Your task to perform on an android device: Is it going to rain tomorrow? Image 0: 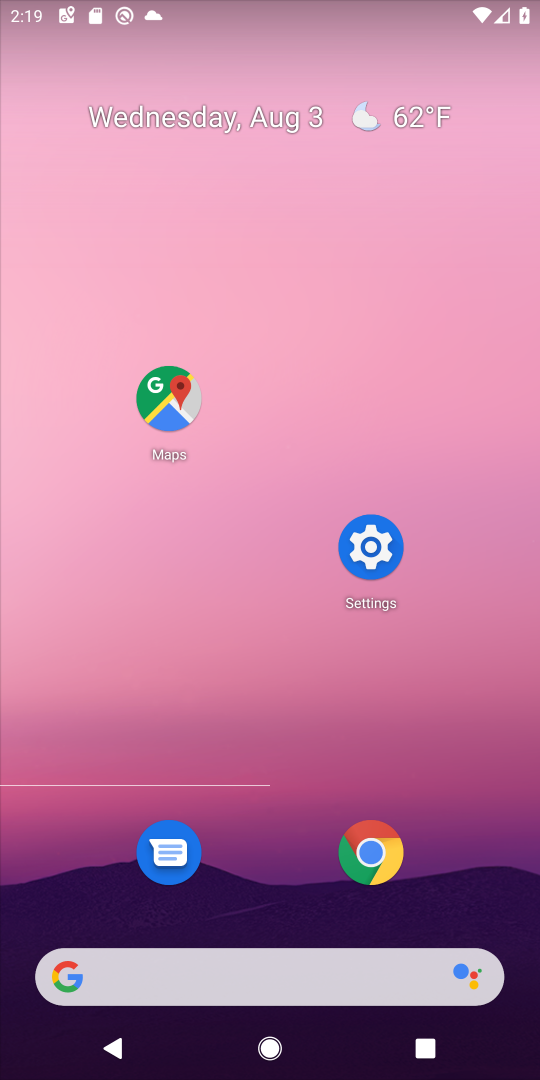
Step 0: press home button
Your task to perform on an android device: Is it going to rain tomorrow? Image 1: 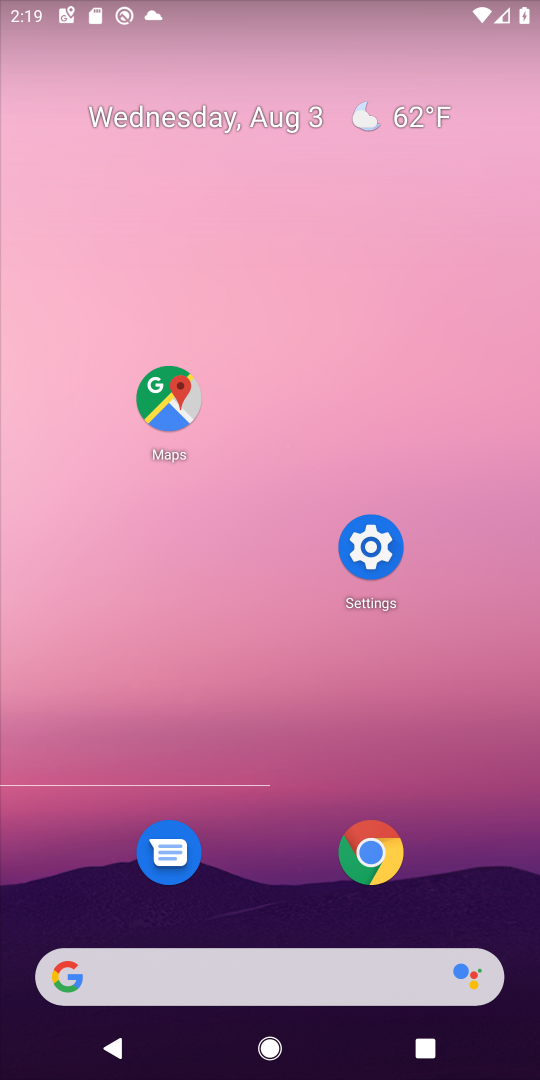
Step 1: click (171, 977)
Your task to perform on an android device: Is it going to rain tomorrow? Image 2: 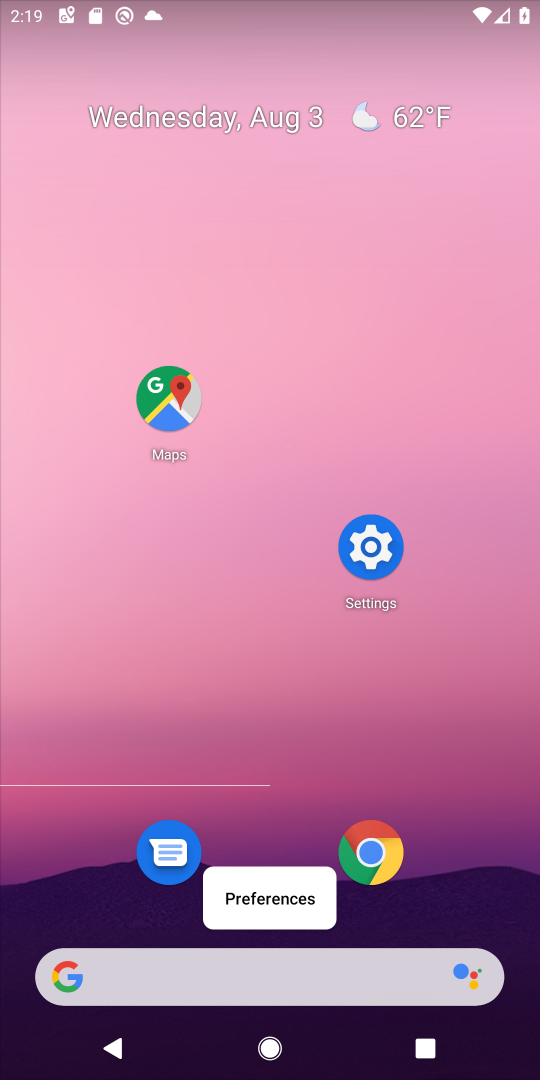
Step 2: click (166, 967)
Your task to perform on an android device: Is it going to rain tomorrow? Image 3: 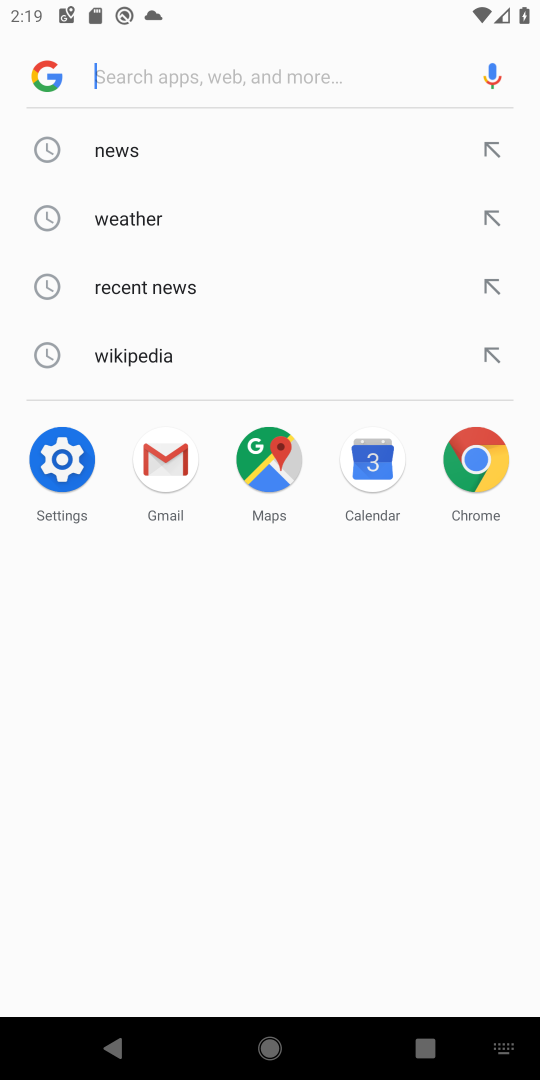
Step 3: click (149, 217)
Your task to perform on an android device: Is it going to rain tomorrow? Image 4: 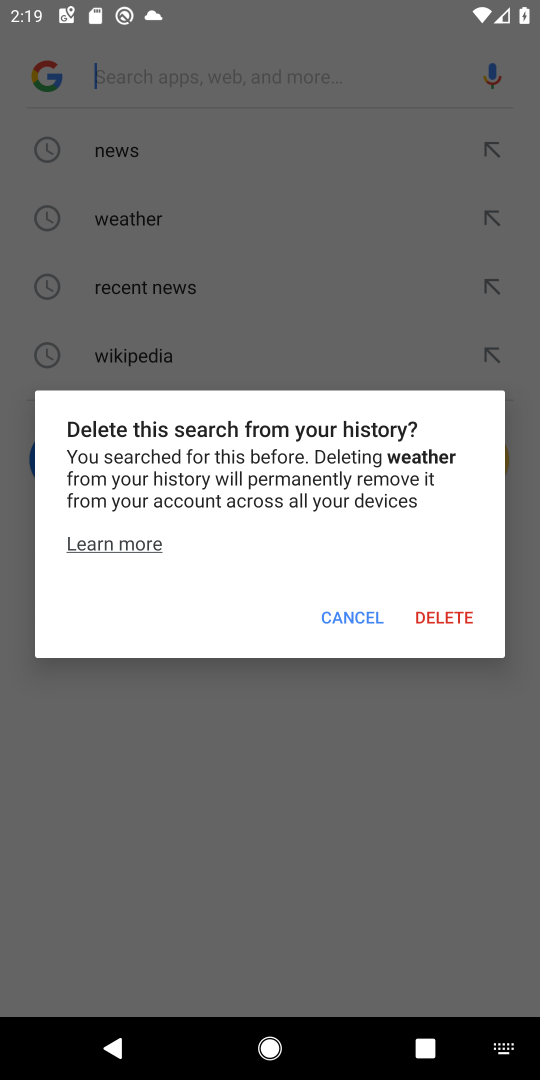
Step 4: click (342, 616)
Your task to perform on an android device: Is it going to rain tomorrow? Image 5: 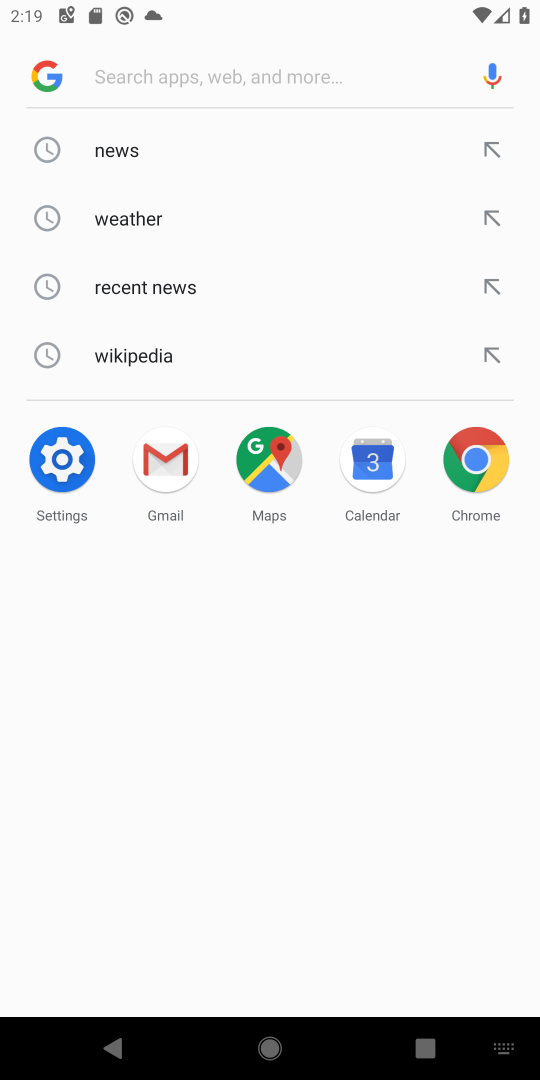
Step 5: click (105, 214)
Your task to perform on an android device: Is it going to rain tomorrow? Image 6: 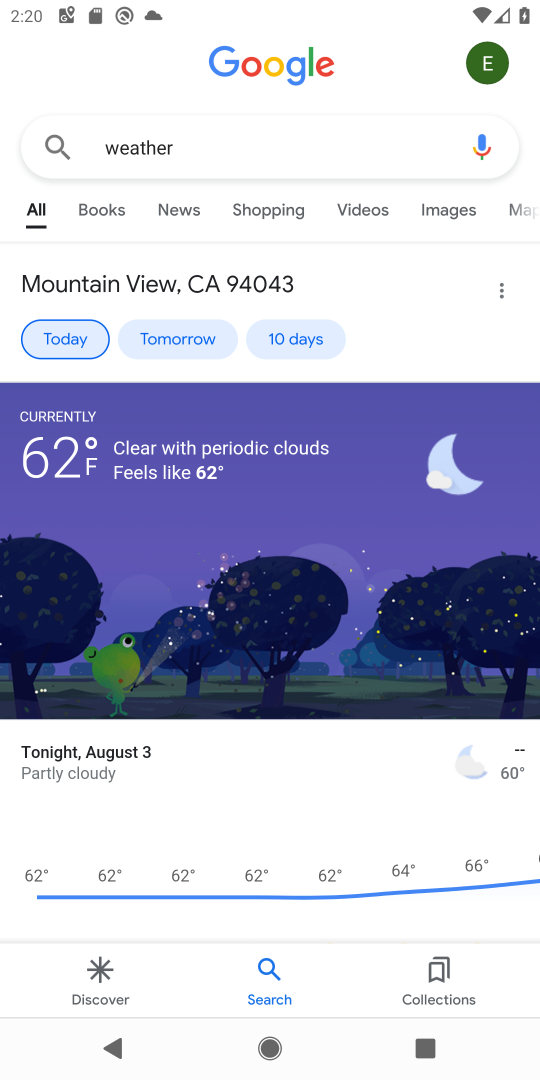
Step 6: click (151, 336)
Your task to perform on an android device: Is it going to rain tomorrow? Image 7: 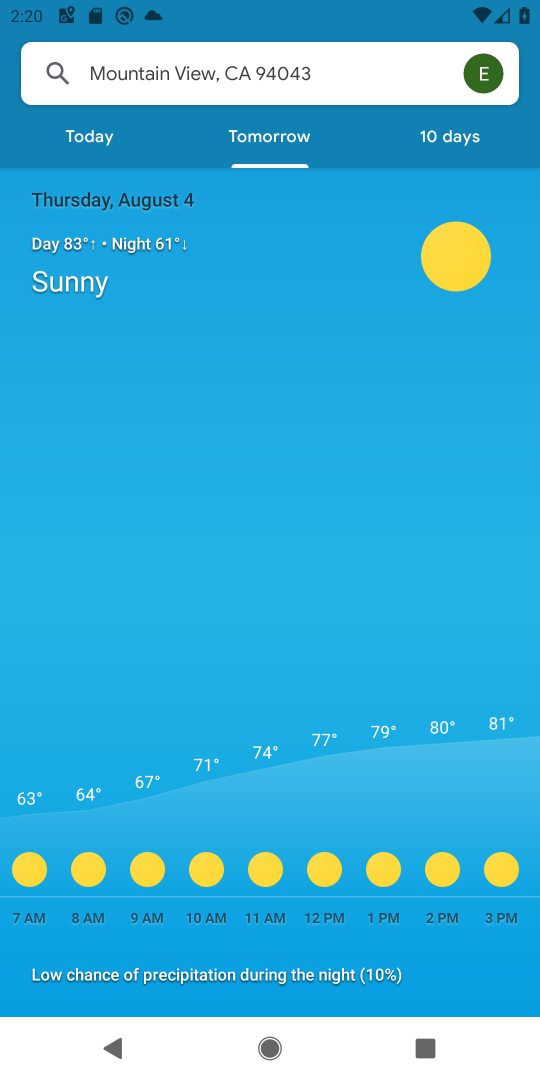
Step 7: task complete